Your task to perform on an android device: turn on data saver in the chrome app Image 0: 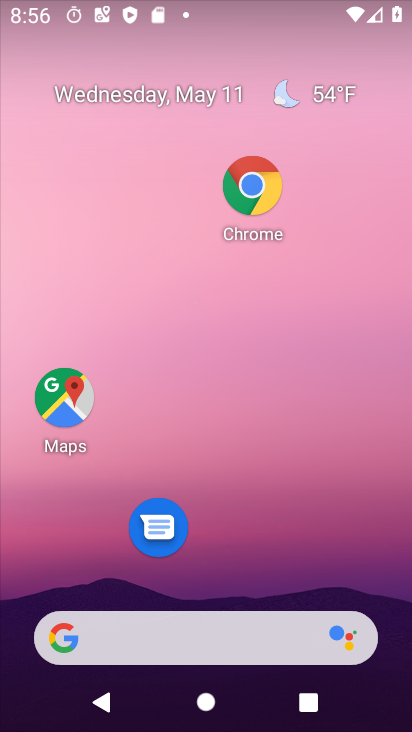
Step 0: click (250, 186)
Your task to perform on an android device: turn on data saver in the chrome app Image 1: 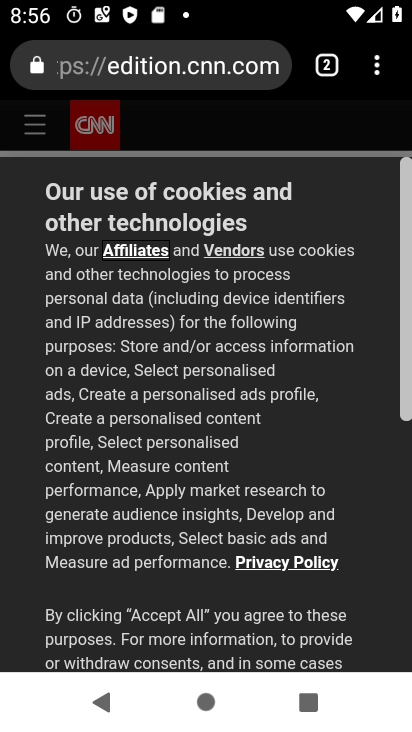
Step 1: click (369, 73)
Your task to perform on an android device: turn on data saver in the chrome app Image 2: 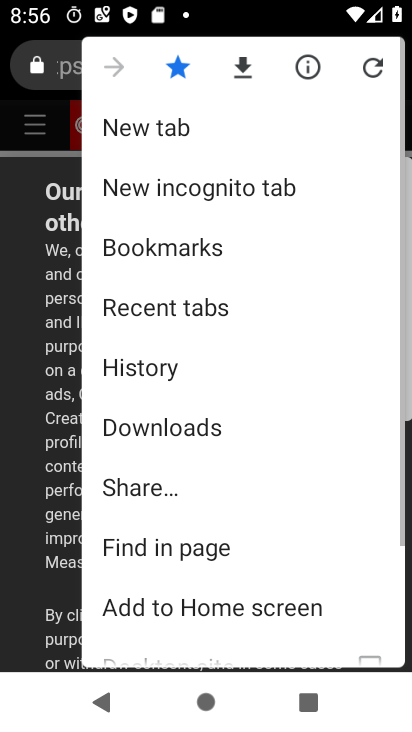
Step 2: drag from (222, 569) to (249, 109)
Your task to perform on an android device: turn on data saver in the chrome app Image 3: 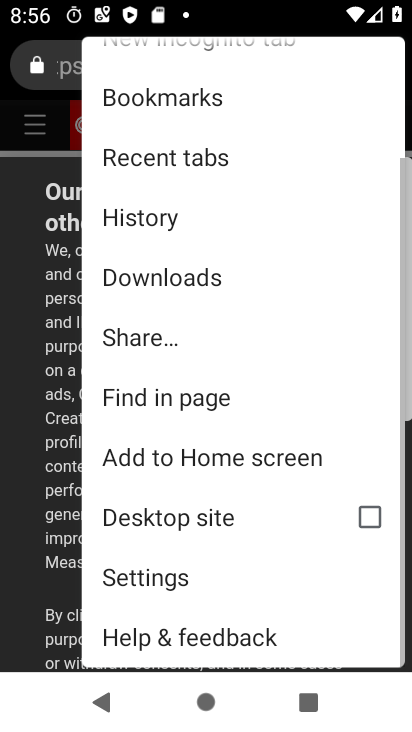
Step 3: click (188, 581)
Your task to perform on an android device: turn on data saver in the chrome app Image 4: 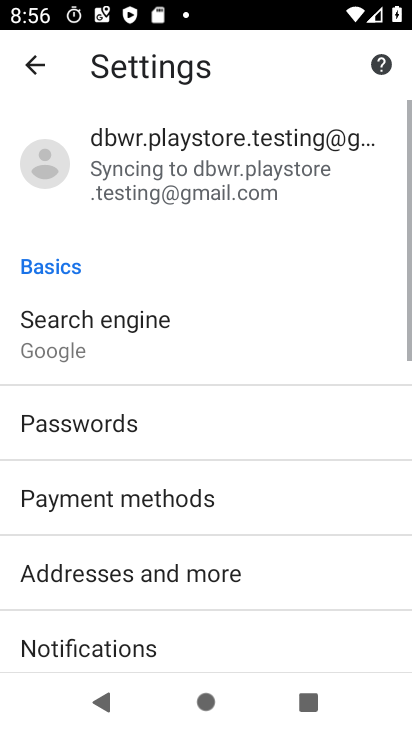
Step 4: drag from (209, 619) to (216, 36)
Your task to perform on an android device: turn on data saver in the chrome app Image 5: 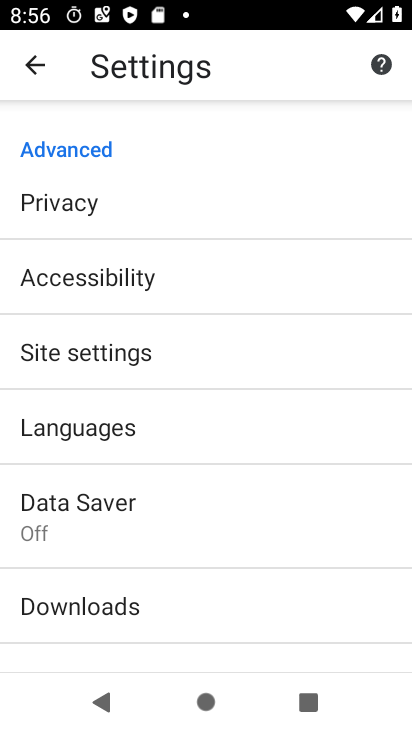
Step 5: click (102, 513)
Your task to perform on an android device: turn on data saver in the chrome app Image 6: 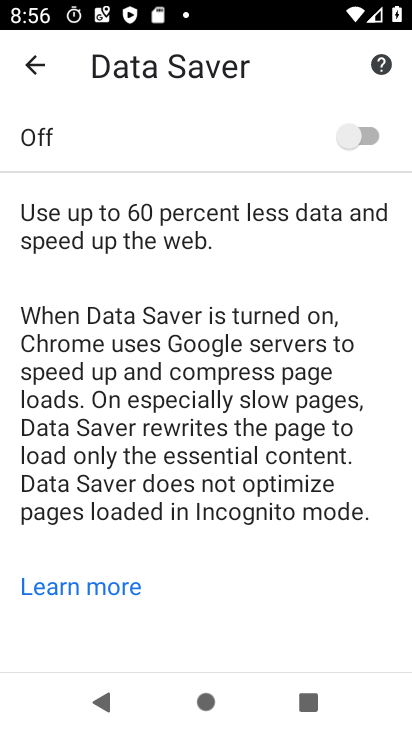
Step 6: click (377, 120)
Your task to perform on an android device: turn on data saver in the chrome app Image 7: 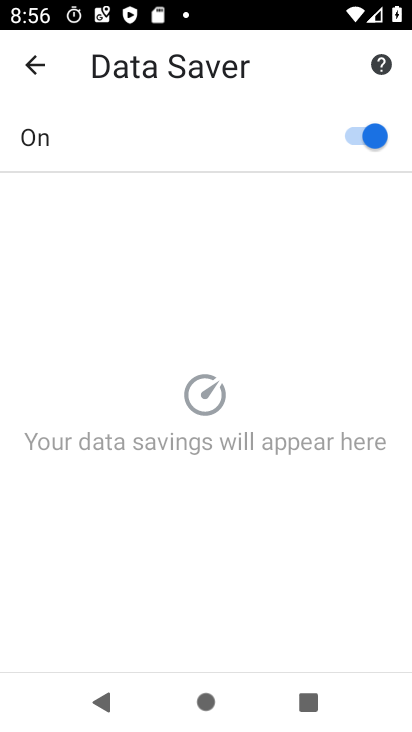
Step 7: task complete